Your task to perform on an android device: refresh tabs in the chrome app Image 0: 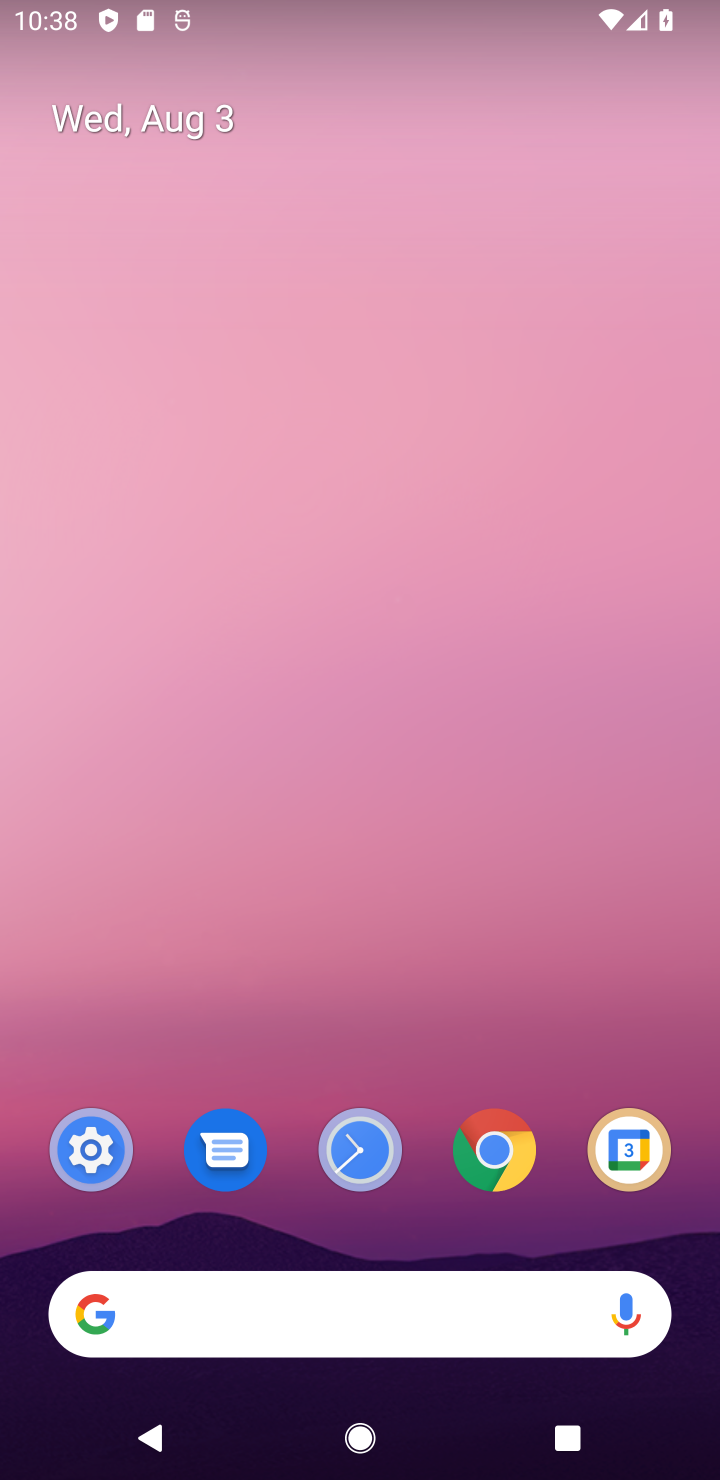
Step 0: drag from (485, 1031) to (511, 350)
Your task to perform on an android device: refresh tabs in the chrome app Image 1: 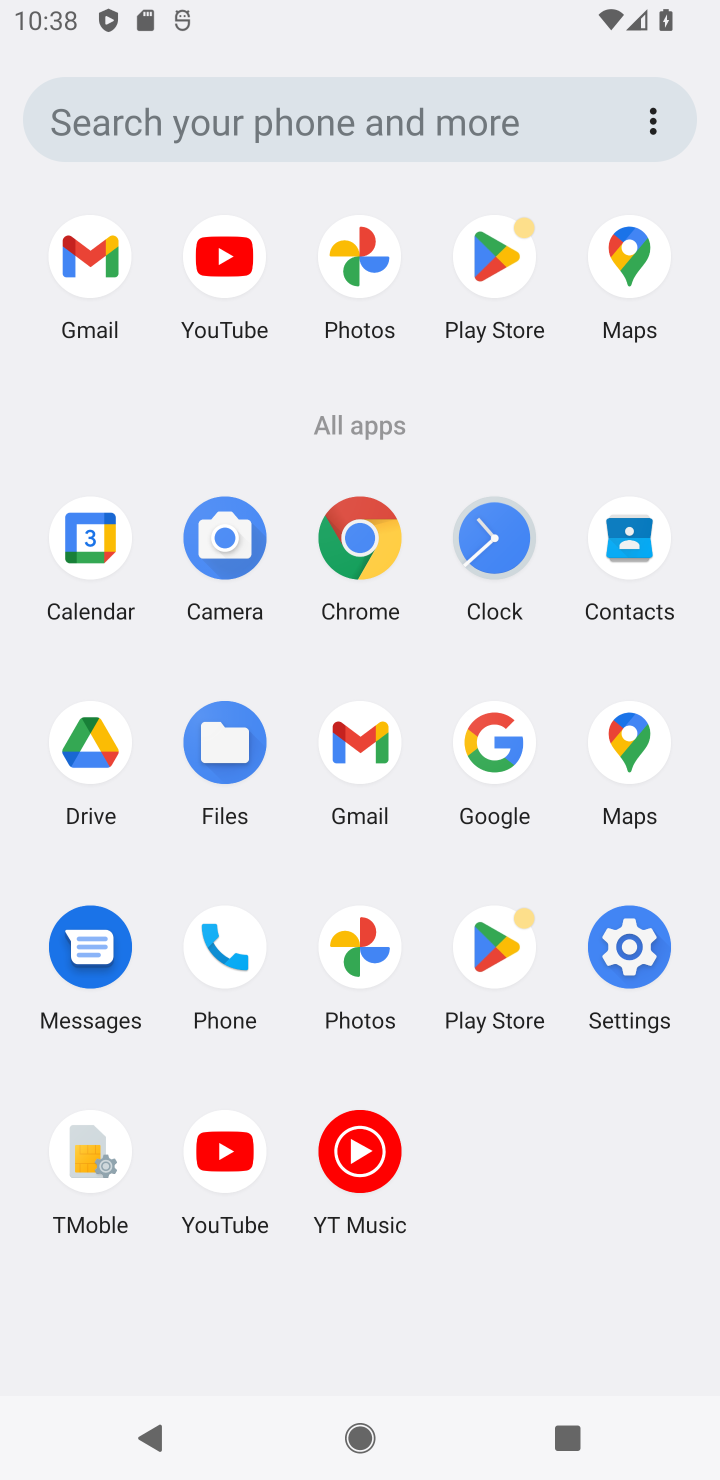
Step 1: click (349, 544)
Your task to perform on an android device: refresh tabs in the chrome app Image 2: 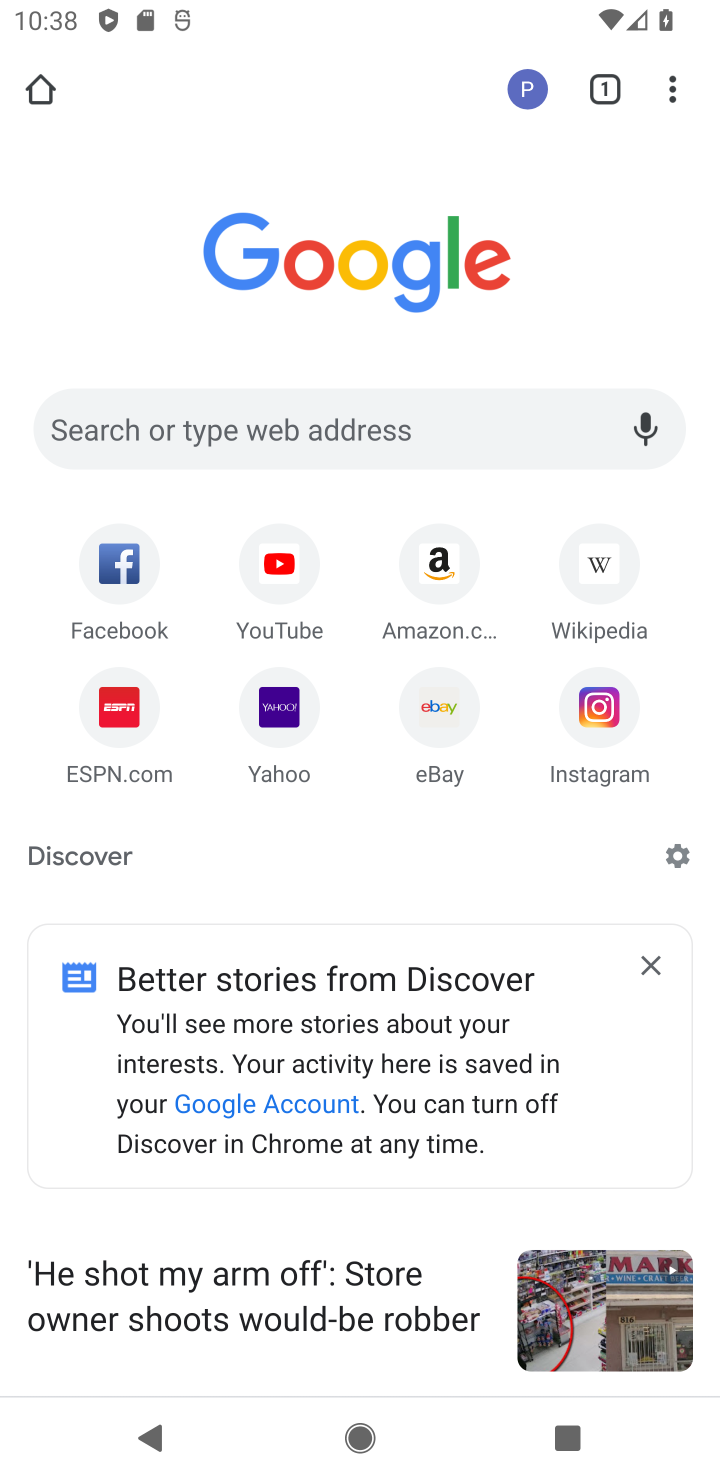
Step 2: click (679, 88)
Your task to perform on an android device: refresh tabs in the chrome app Image 3: 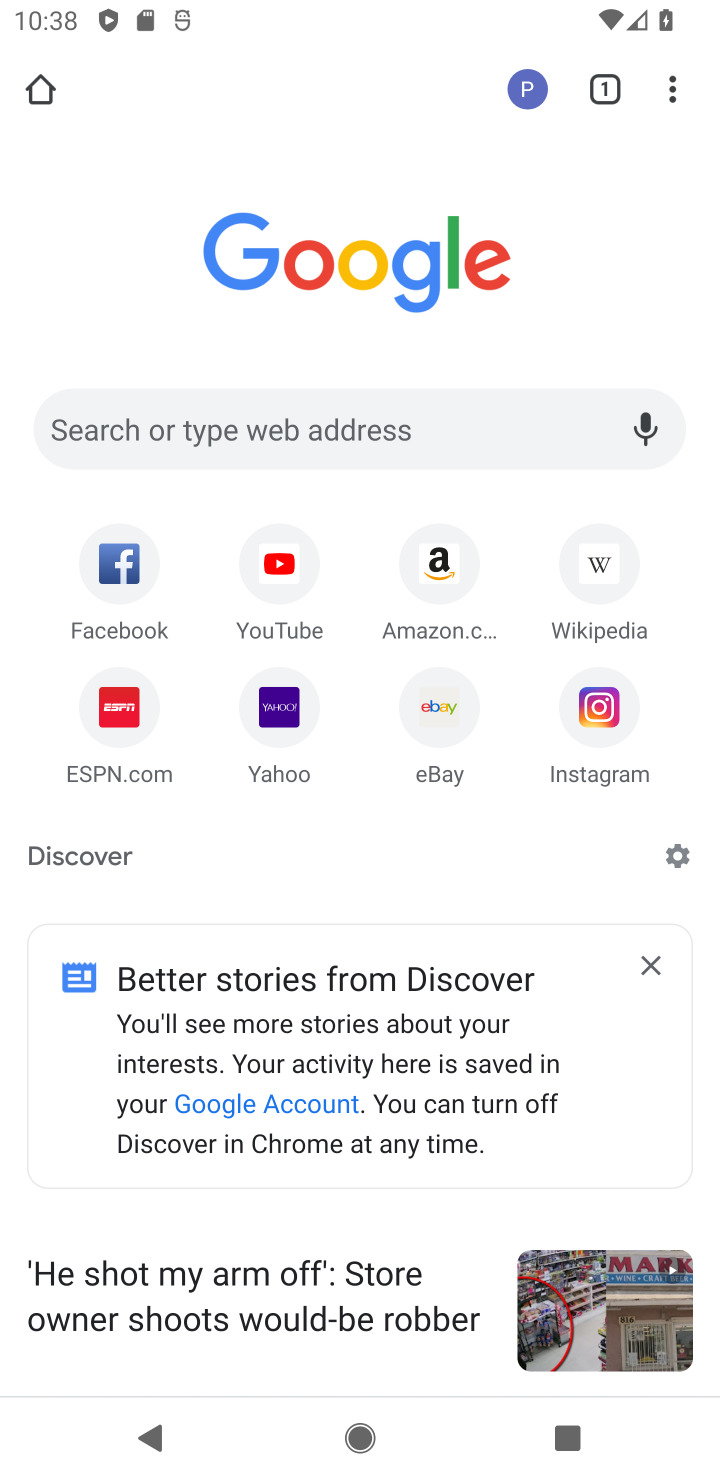
Step 3: click (676, 94)
Your task to perform on an android device: refresh tabs in the chrome app Image 4: 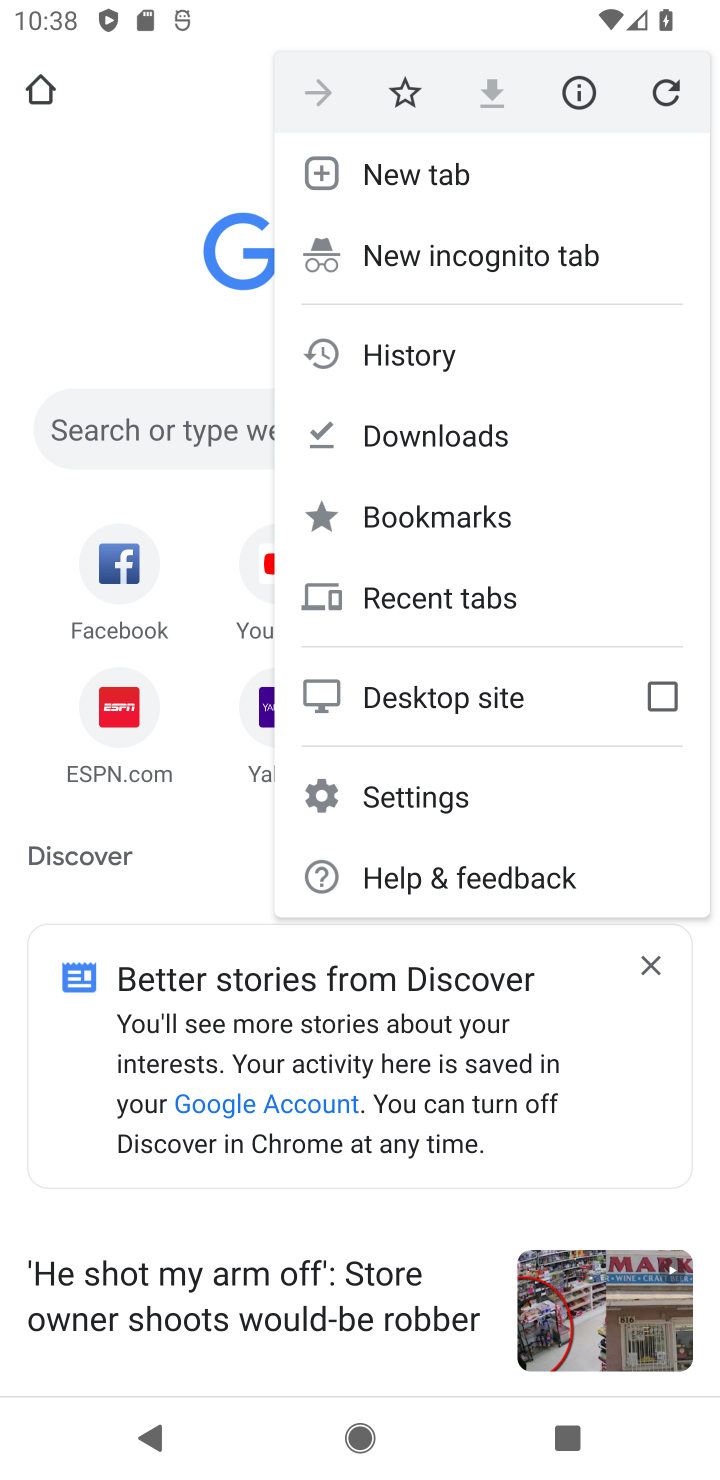
Step 4: click (667, 90)
Your task to perform on an android device: refresh tabs in the chrome app Image 5: 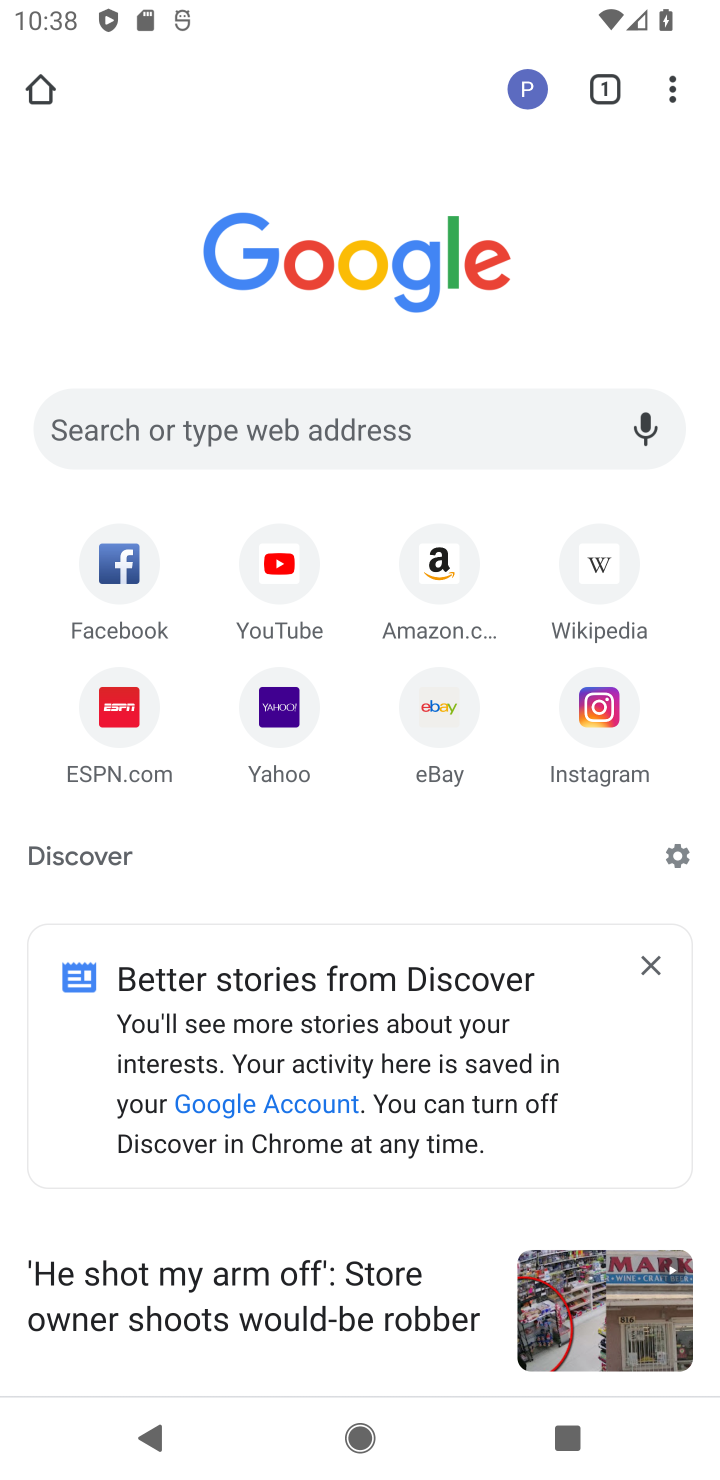
Step 5: task complete